Your task to perform on an android device: Is it going to rain this weekend? Image 0: 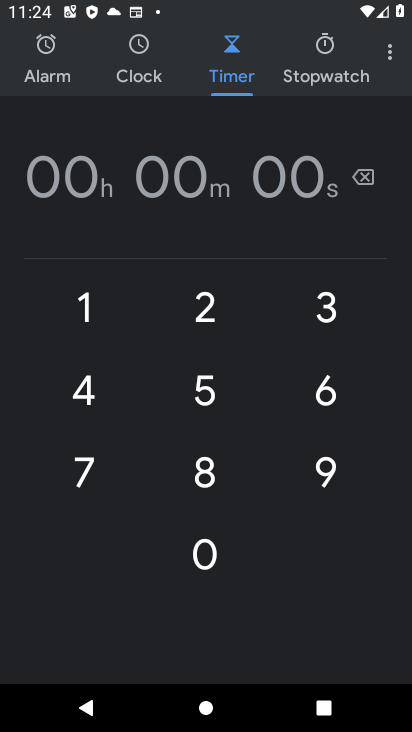
Step 0: press home button
Your task to perform on an android device: Is it going to rain this weekend? Image 1: 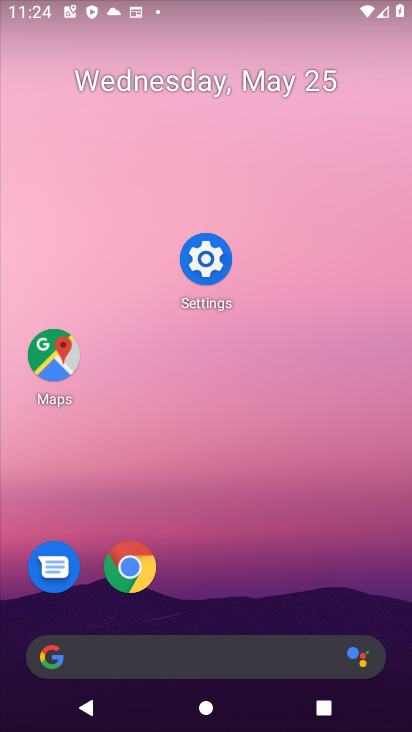
Step 1: drag from (268, 540) to (246, 99)
Your task to perform on an android device: Is it going to rain this weekend? Image 2: 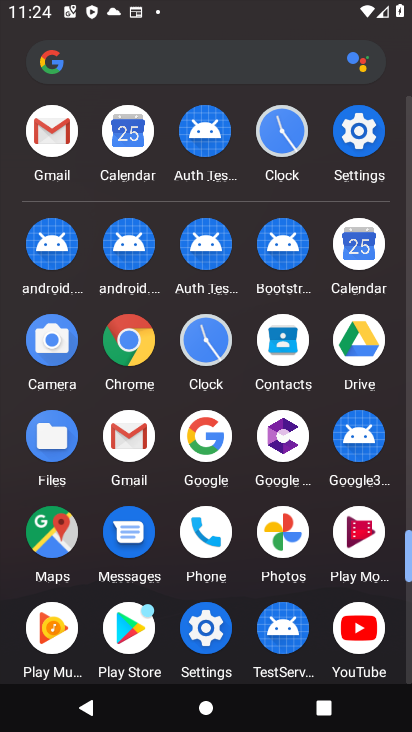
Step 2: click (241, 59)
Your task to perform on an android device: Is it going to rain this weekend? Image 3: 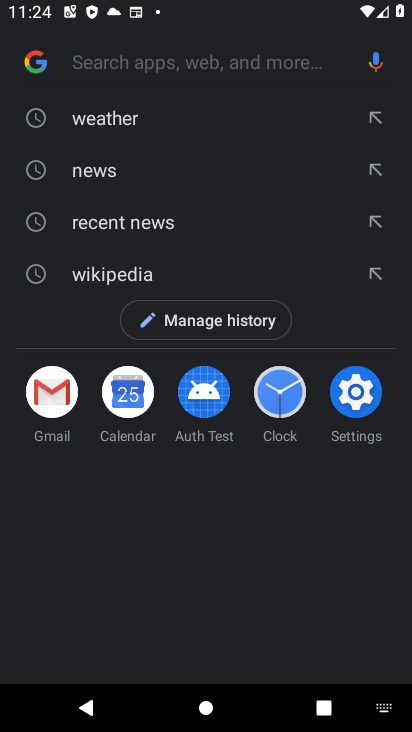
Step 3: click (137, 219)
Your task to perform on an android device: Is it going to rain this weekend? Image 4: 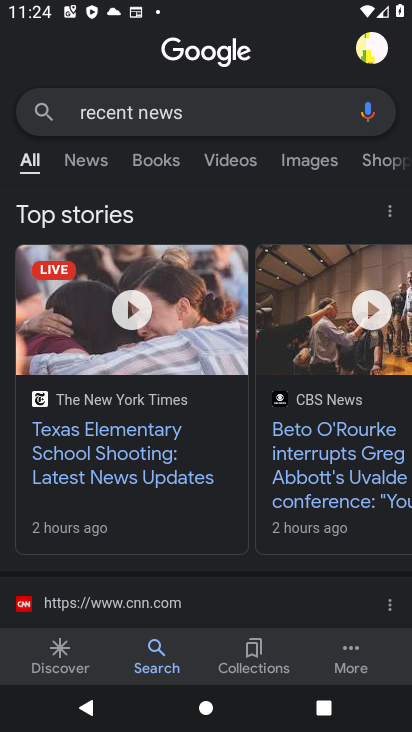
Step 4: task complete